Your task to perform on an android device: What's the price of the TCL TV? Image 0: 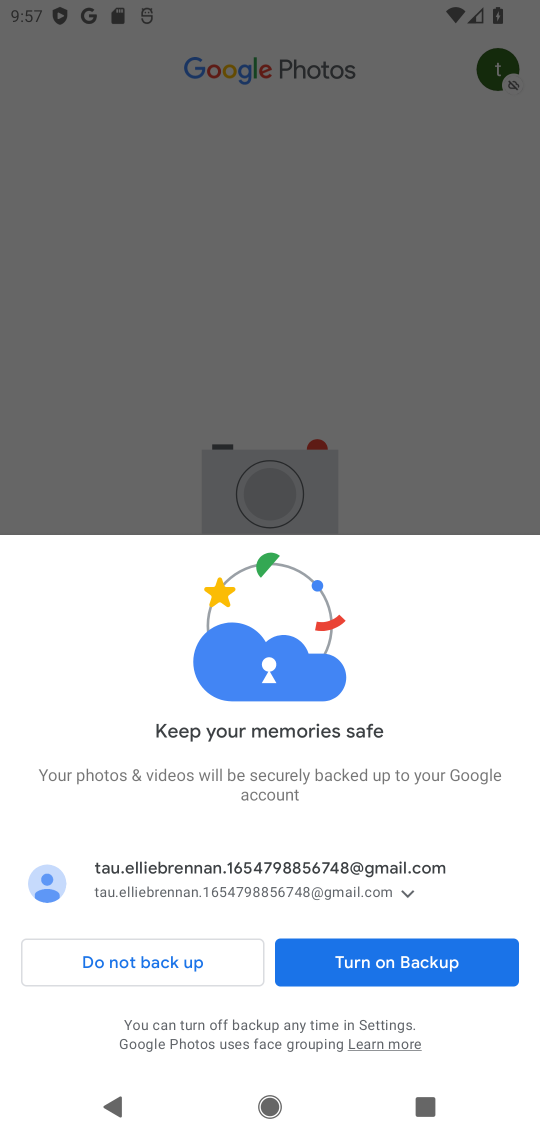
Step 0: press home button
Your task to perform on an android device: What's the price of the TCL TV? Image 1: 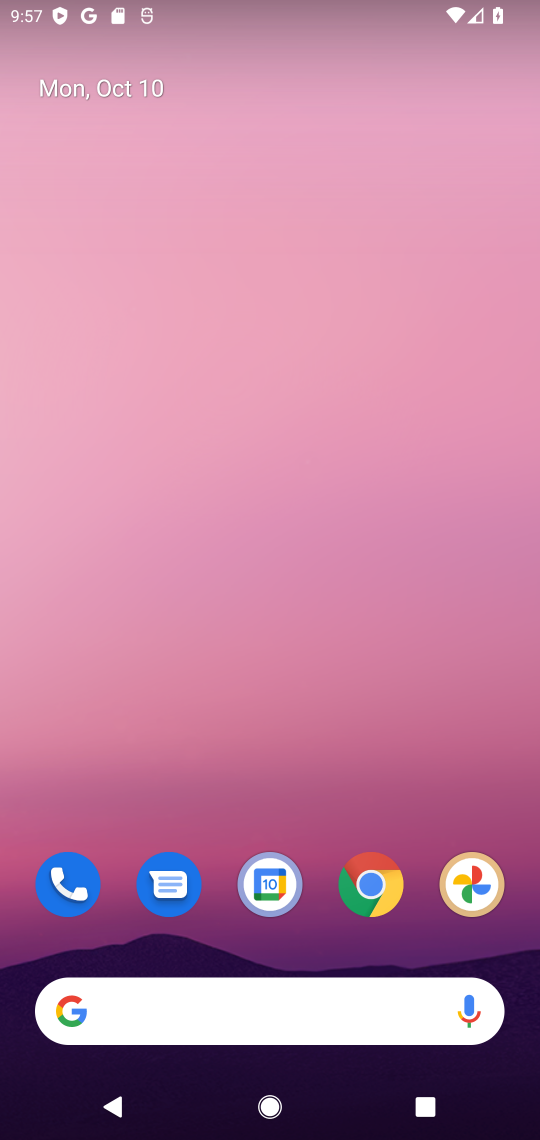
Step 1: drag from (328, 956) to (330, 82)
Your task to perform on an android device: What's the price of the TCL TV? Image 2: 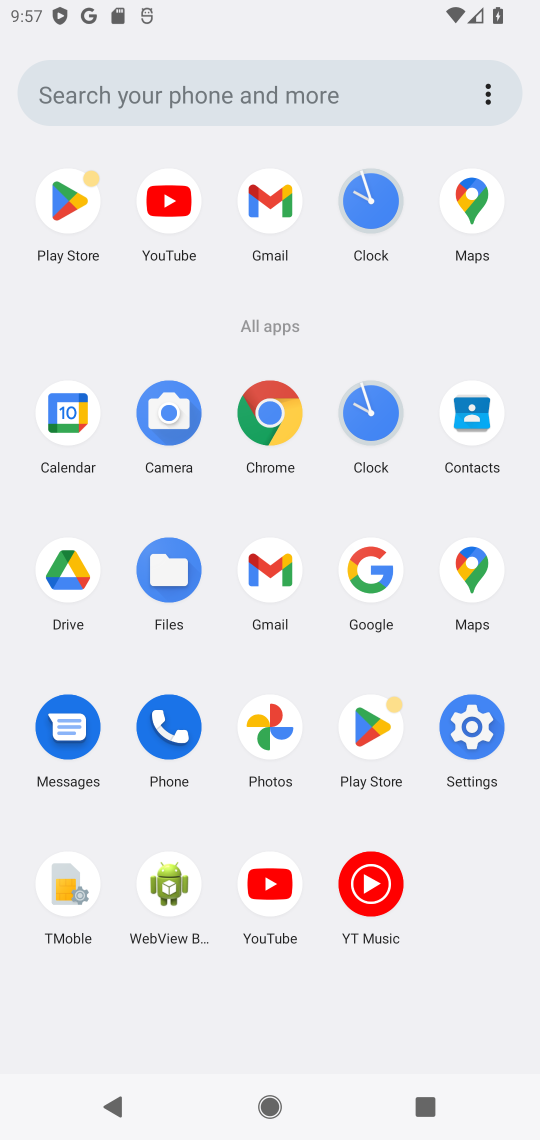
Step 2: click (389, 562)
Your task to perform on an android device: What's the price of the TCL TV? Image 3: 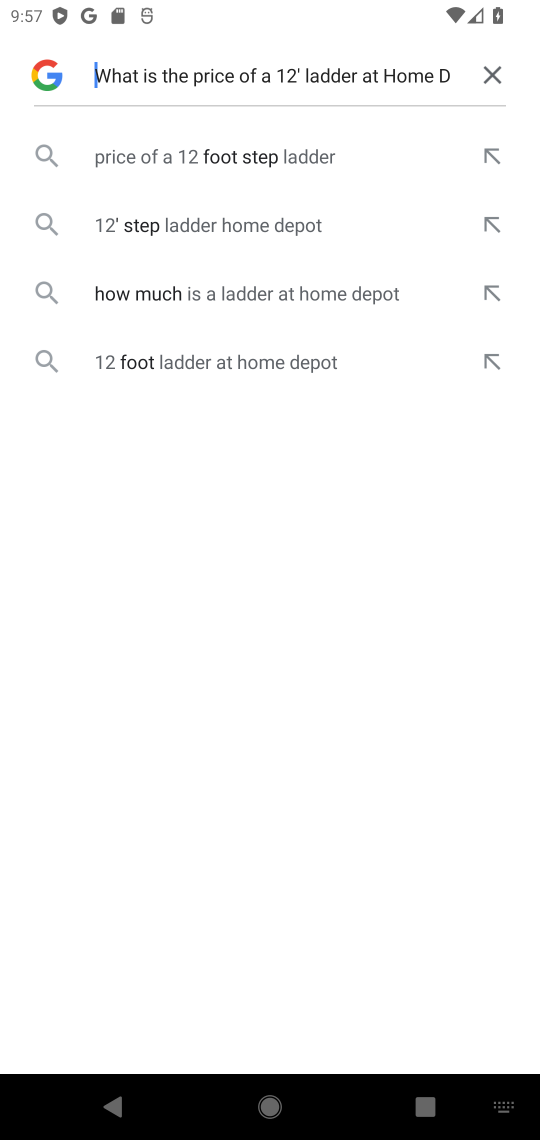
Step 3: click (487, 79)
Your task to perform on an android device: What's the price of the TCL TV? Image 4: 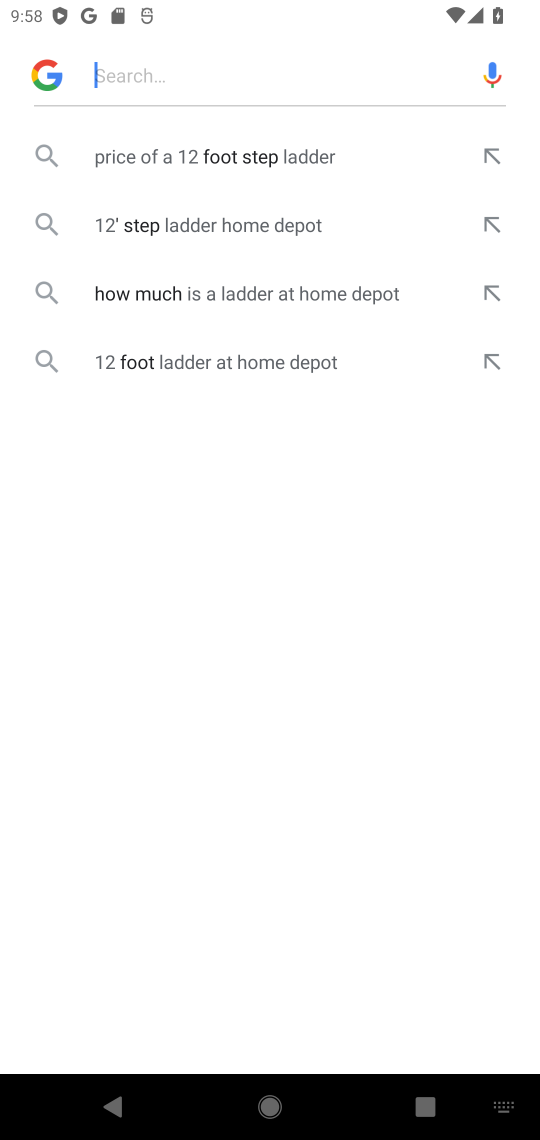
Step 4: type "What's the price of the TCL TV?"
Your task to perform on an android device: What's the price of the TCL TV? Image 5: 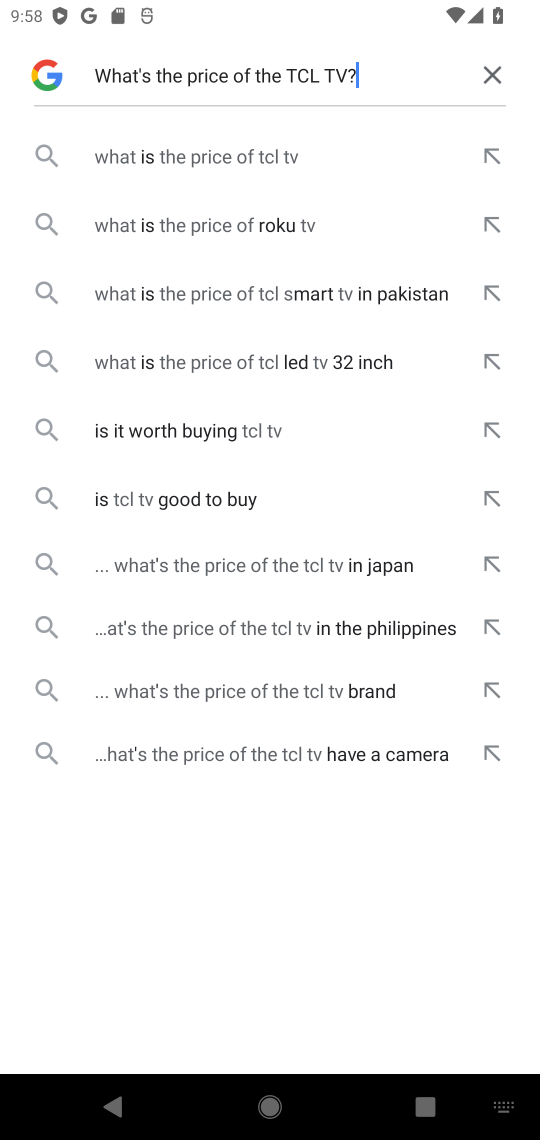
Step 5: type ""
Your task to perform on an android device: What's the price of the TCL TV? Image 6: 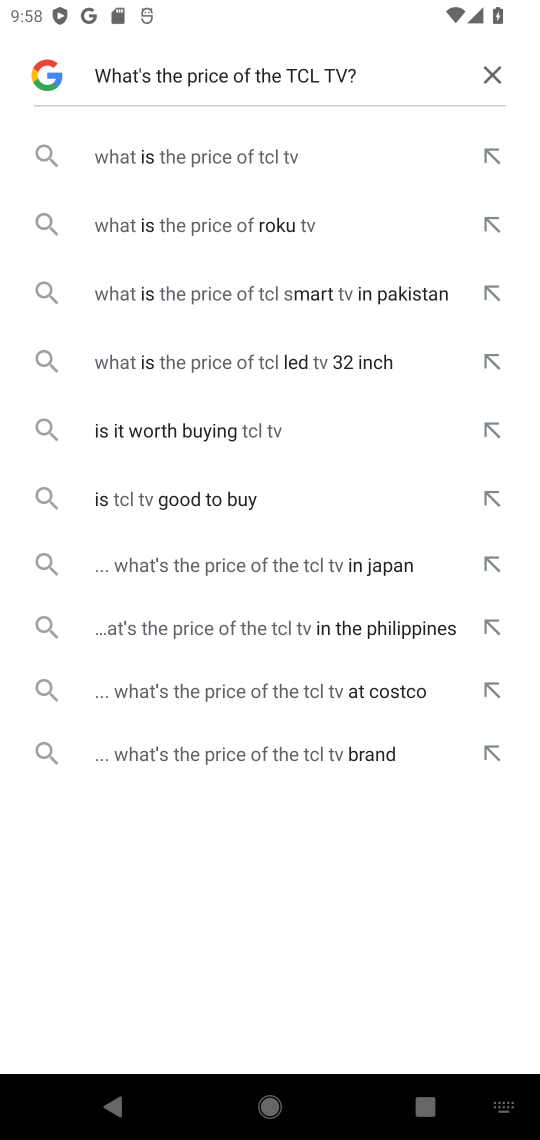
Step 6: click (246, 155)
Your task to perform on an android device: What's the price of the TCL TV? Image 7: 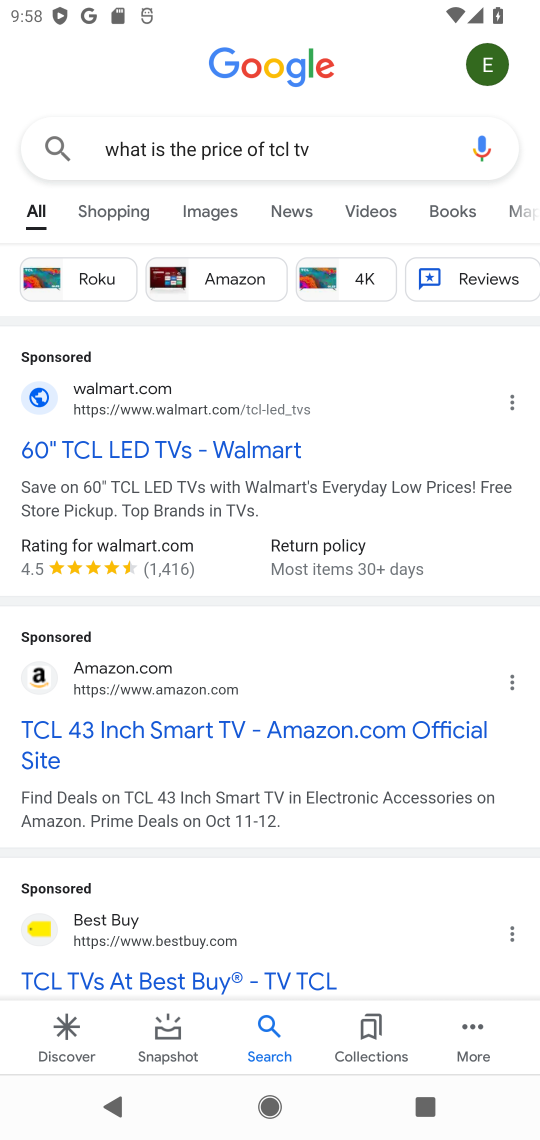
Step 7: task complete